Your task to perform on an android device: Open Maps and search for coffee Image 0: 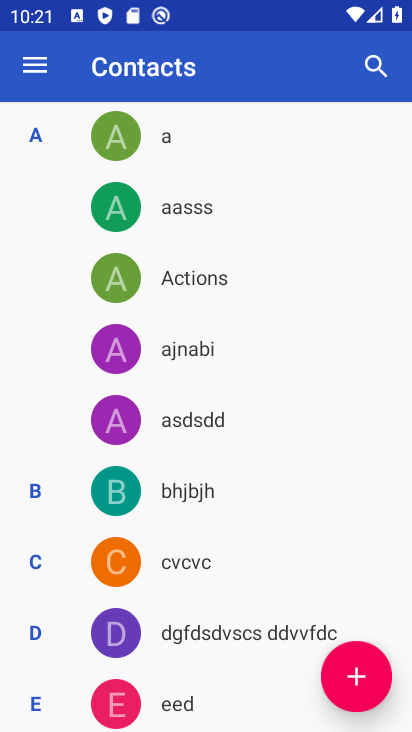
Step 0: press home button
Your task to perform on an android device: Open Maps and search for coffee Image 1: 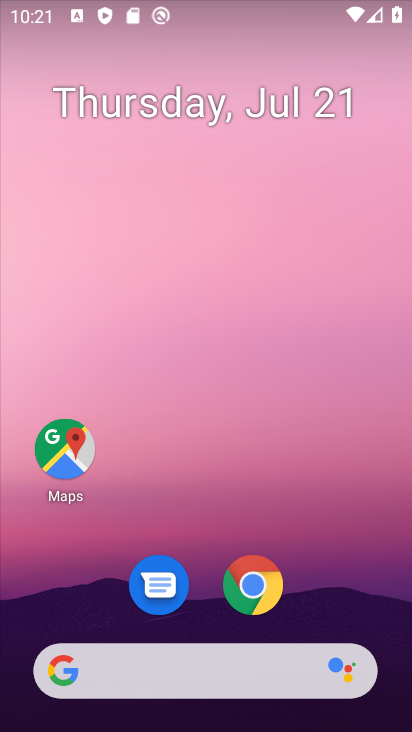
Step 1: click (70, 445)
Your task to perform on an android device: Open Maps and search for coffee Image 2: 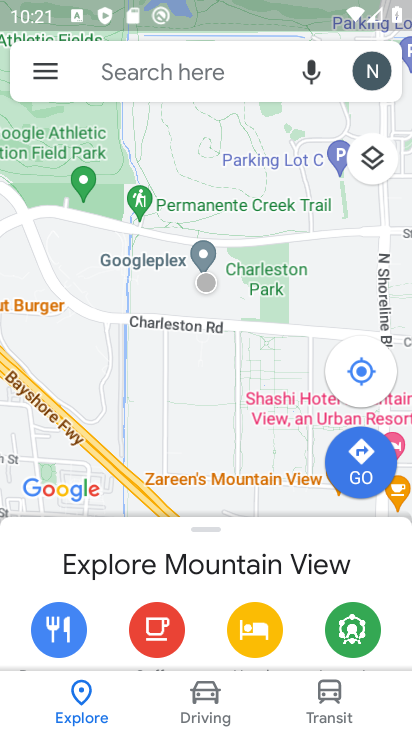
Step 2: click (196, 72)
Your task to perform on an android device: Open Maps and search for coffee Image 3: 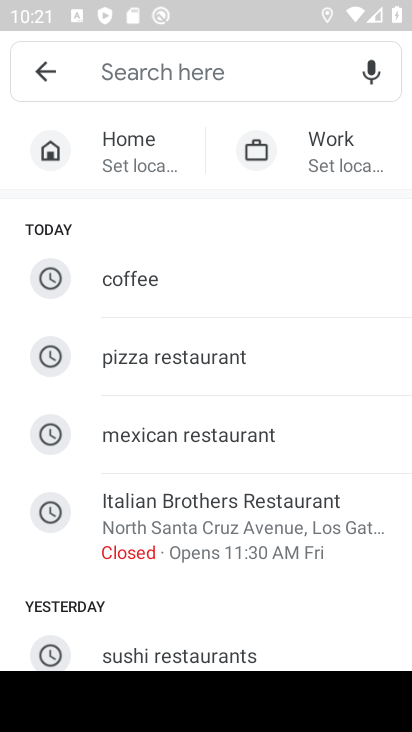
Step 3: click (151, 277)
Your task to perform on an android device: Open Maps and search for coffee Image 4: 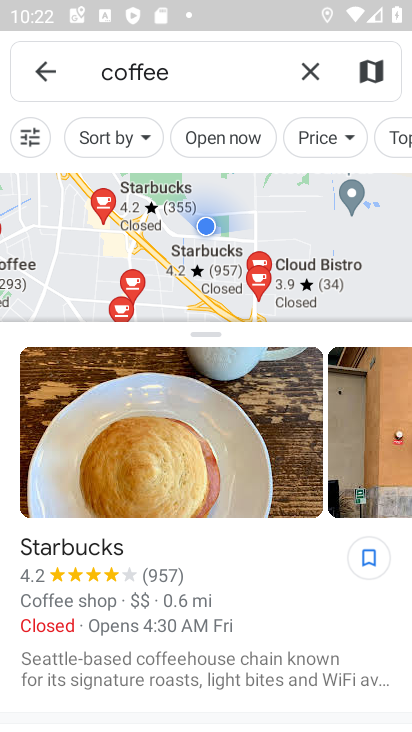
Step 4: task complete